Your task to perform on an android device: Open Google Chrome Image 0: 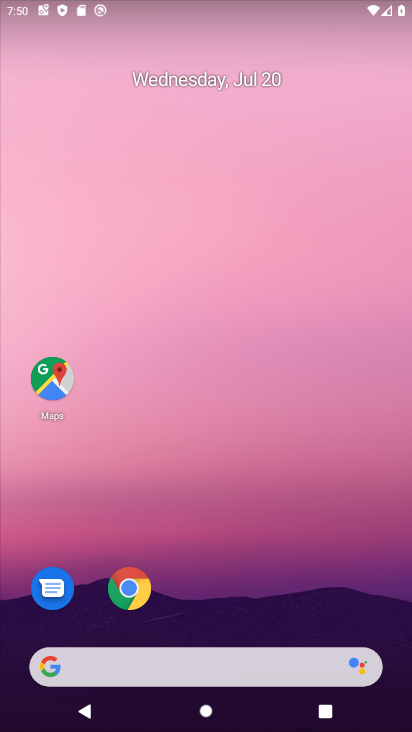
Step 0: click (133, 576)
Your task to perform on an android device: Open Google Chrome Image 1: 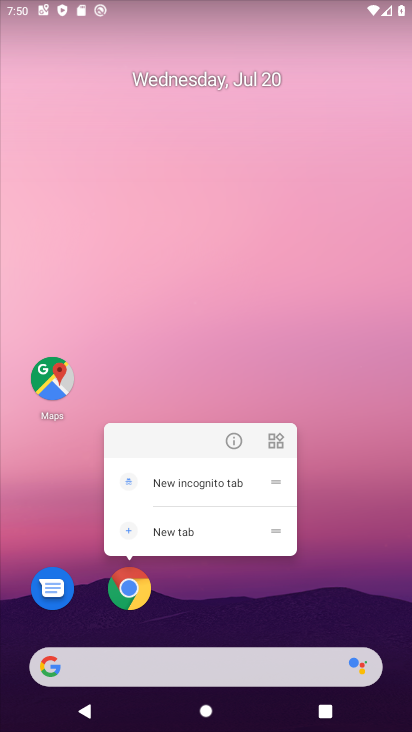
Step 1: click (133, 576)
Your task to perform on an android device: Open Google Chrome Image 2: 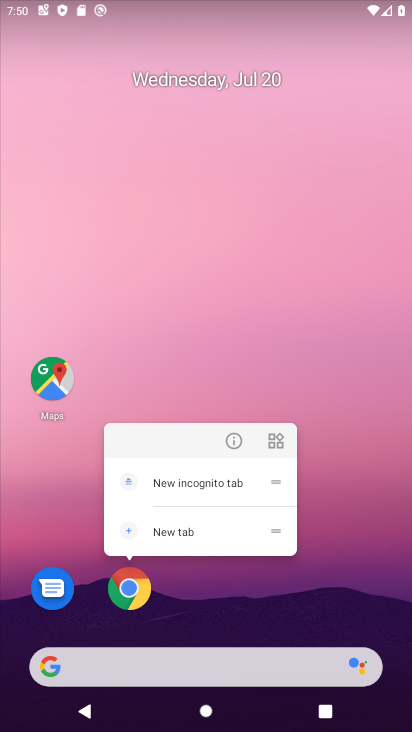
Step 2: click (133, 576)
Your task to perform on an android device: Open Google Chrome Image 3: 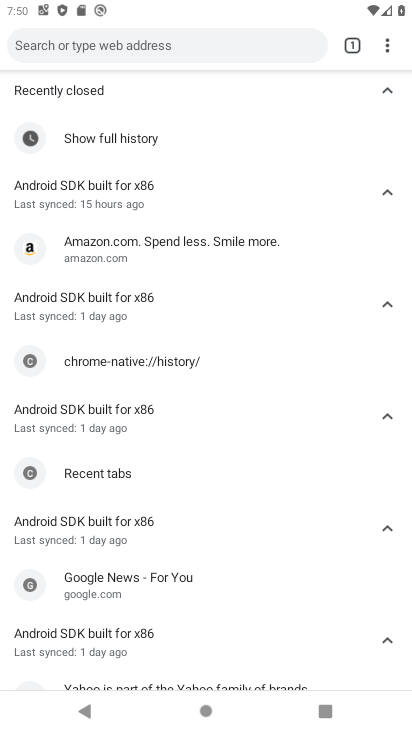
Step 3: task complete